Your task to perform on an android device: Find coffee shops on Maps Image 0: 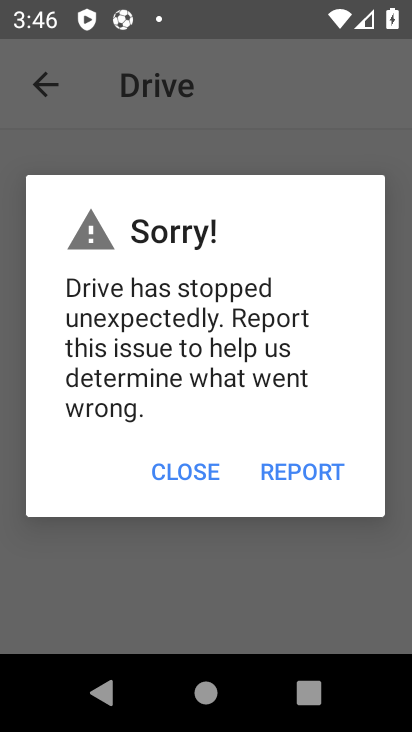
Step 0: click (333, 467)
Your task to perform on an android device: Find coffee shops on Maps Image 1: 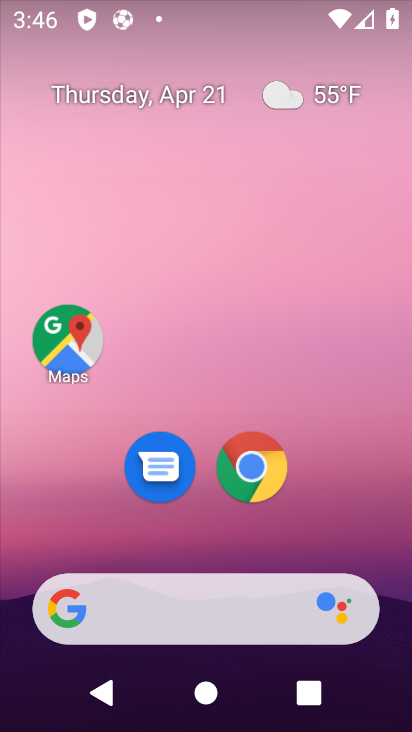
Step 1: press home button
Your task to perform on an android device: Find coffee shops on Maps Image 2: 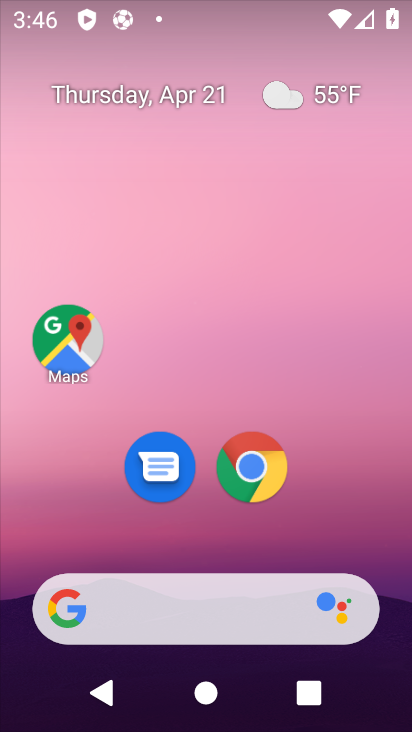
Step 2: drag from (194, 646) to (302, 260)
Your task to perform on an android device: Find coffee shops on Maps Image 3: 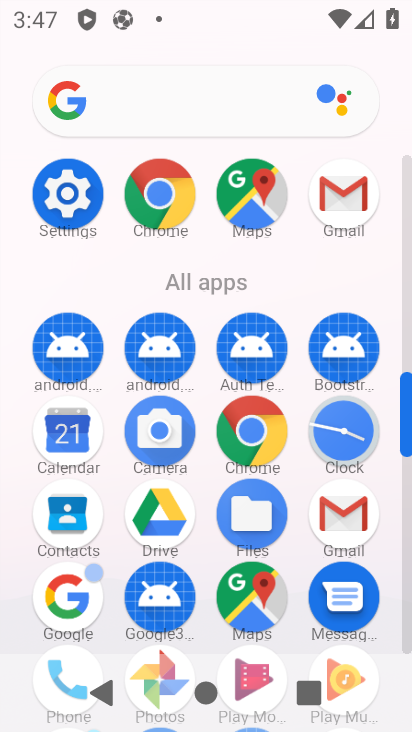
Step 3: click (240, 612)
Your task to perform on an android device: Find coffee shops on Maps Image 4: 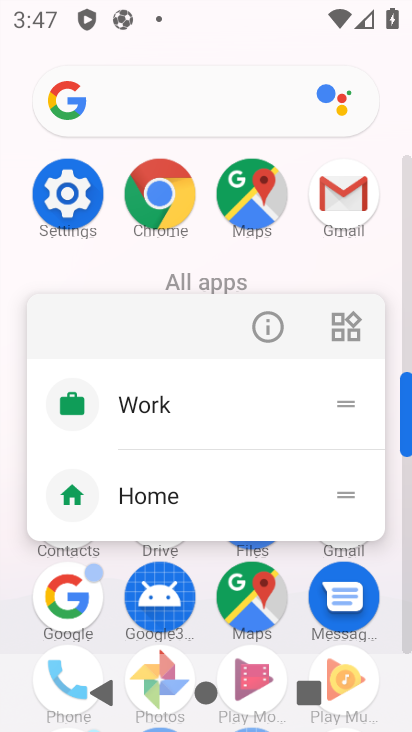
Step 4: click (261, 593)
Your task to perform on an android device: Find coffee shops on Maps Image 5: 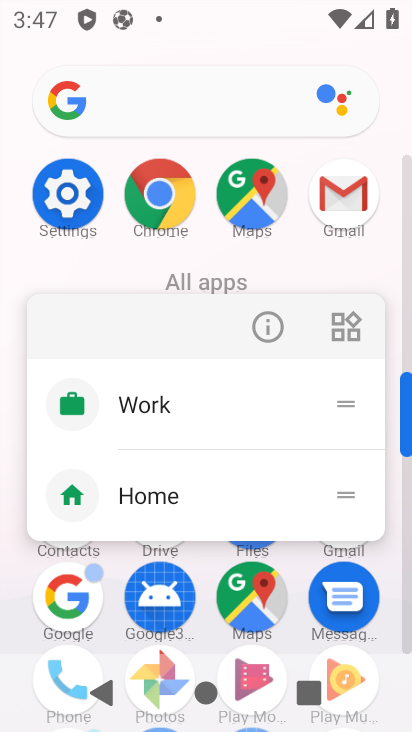
Step 5: click (261, 593)
Your task to perform on an android device: Find coffee shops on Maps Image 6: 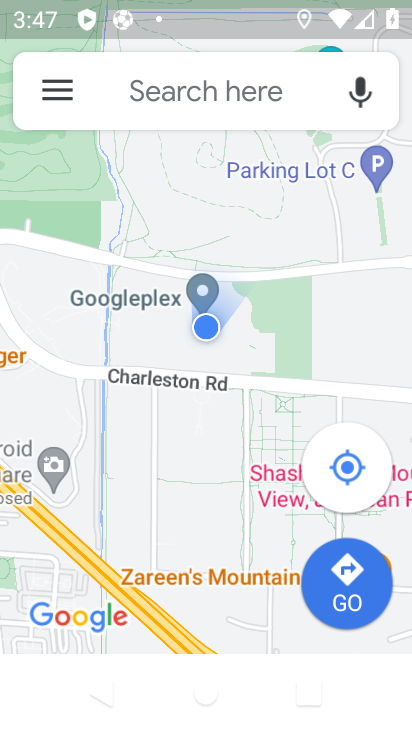
Step 6: click (206, 103)
Your task to perform on an android device: Find coffee shops on Maps Image 7: 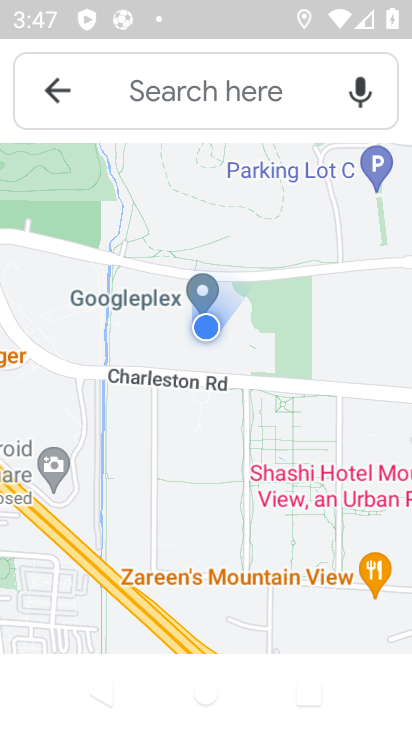
Step 7: click (211, 84)
Your task to perform on an android device: Find coffee shops on Maps Image 8: 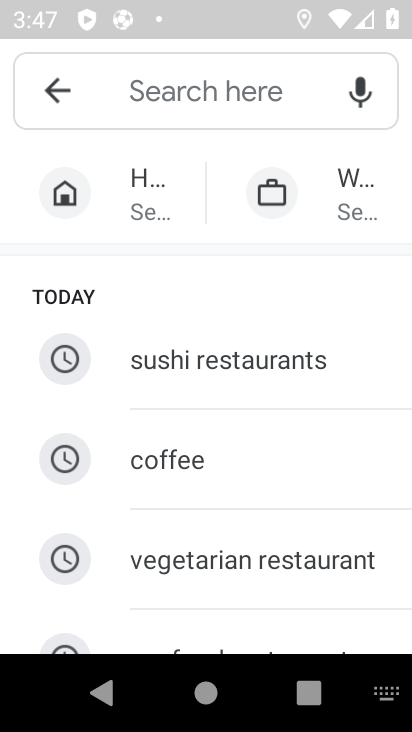
Step 8: type "co"
Your task to perform on an android device: Find coffee shops on Maps Image 9: 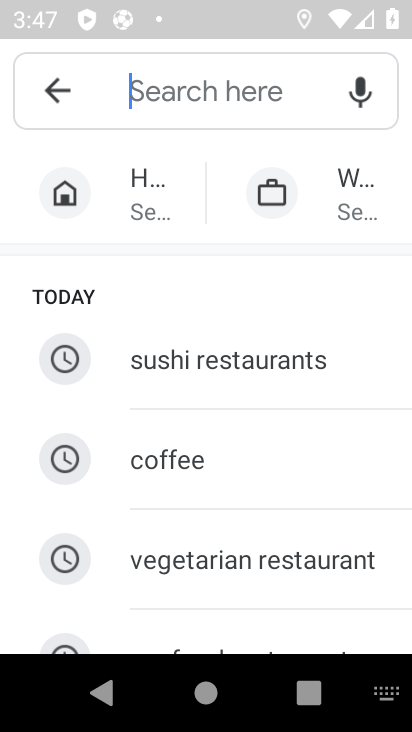
Step 9: click (170, 464)
Your task to perform on an android device: Find coffee shops on Maps Image 10: 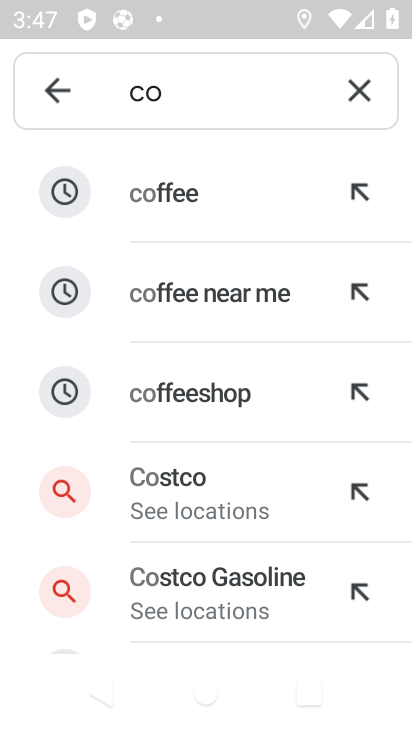
Step 10: click (195, 400)
Your task to perform on an android device: Find coffee shops on Maps Image 11: 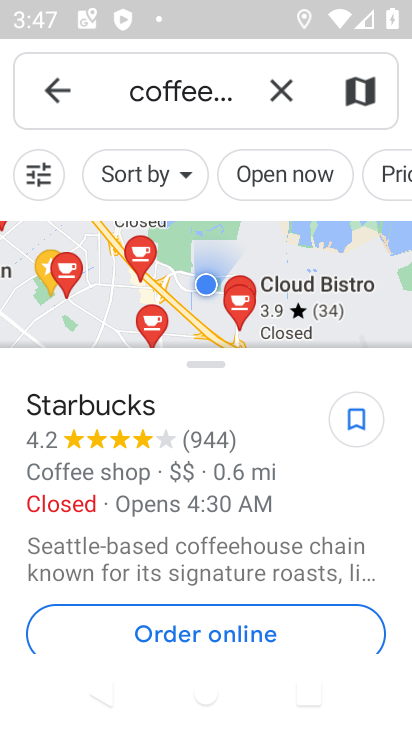
Step 11: task complete